Your task to perform on an android device: turn off javascript in the chrome app Image 0: 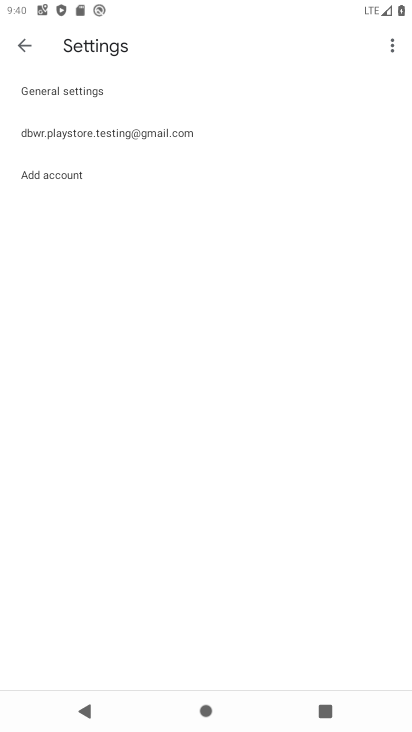
Step 0: press home button
Your task to perform on an android device: turn off javascript in the chrome app Image 1: 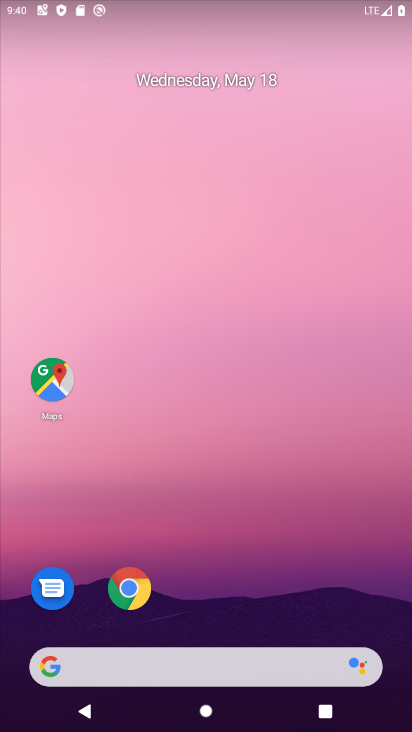
Step 1: click (125, 590)
Your task to perform on an android device: turn off javascript in the chrome app Image 2: 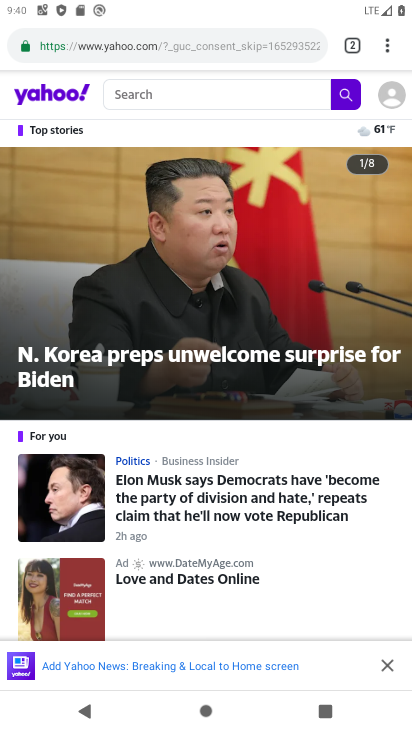
Step 2: click (389, 42)
Your task to perform on an android device: turn off javascript in the chrome app Image 3: 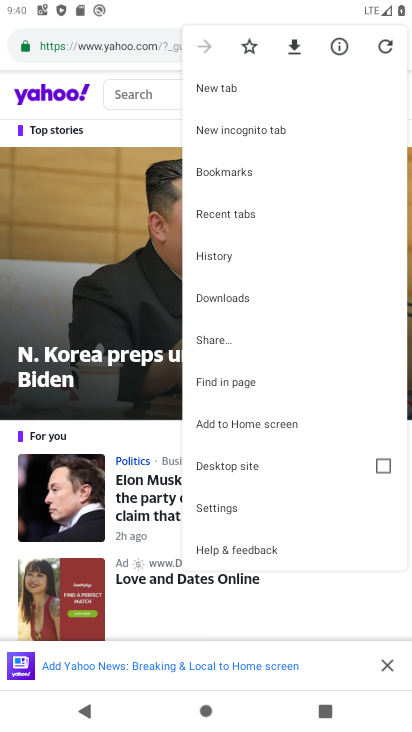
Step 3: click (225, 508)
Your task to perform on an android device: turn off javascript in the chrome app Image 4: 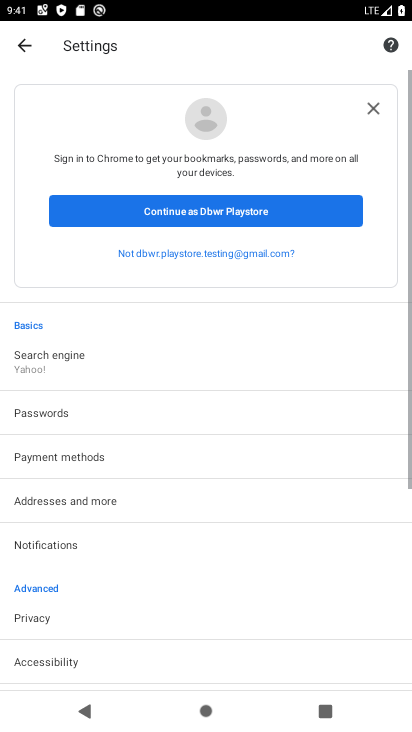
Step 4: drag from (209, 578) to (213, 269)
Your task to perform on an android device: turn off javascript in the chrome app Image 5: 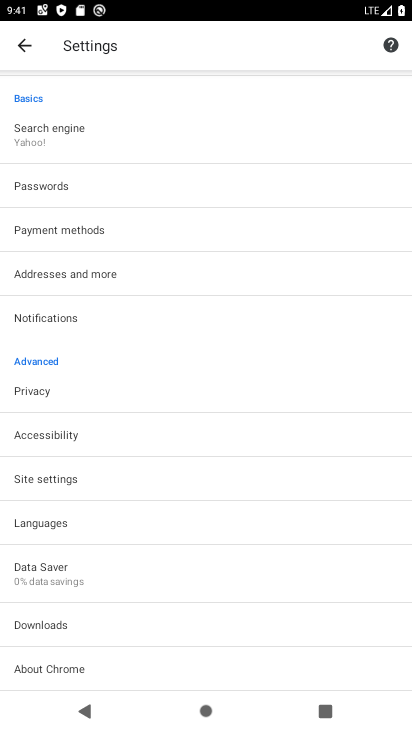
Step 5: click (55, 483)
Your task to perform on an android device: turn off javascript in the chrome app Image 6: 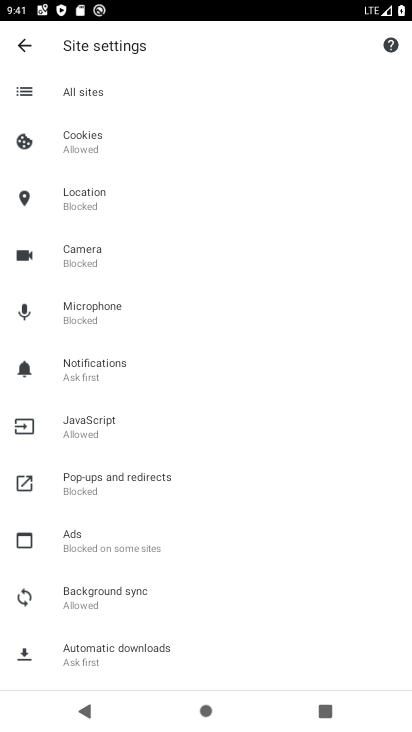
Step 6: click (78, 436)
Your task to perform on an android device: turn off javascript in the chrome app Image 7: 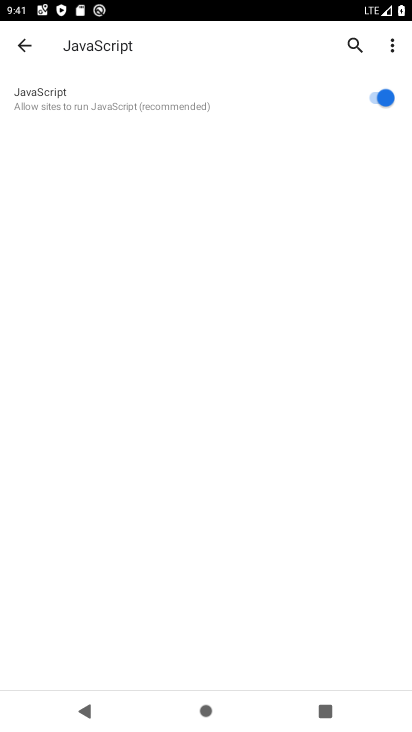
Step 7: click (389, 93)
Your task to perform on an android device: turn off javascript in the chrome app Image 8: 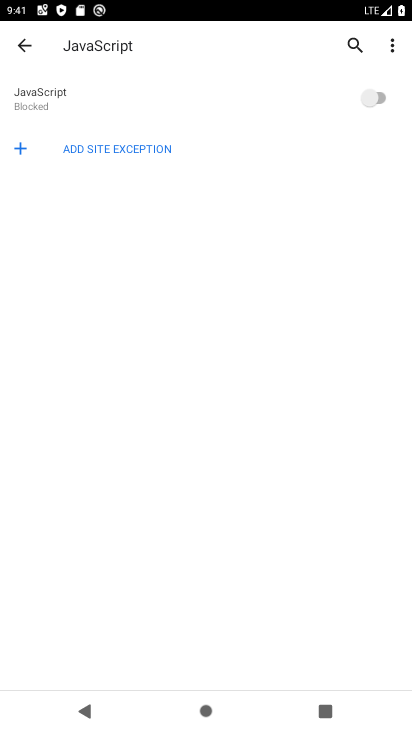
Step 8: task complete